Your task to perform on an android device: change notifications settings Image 0: 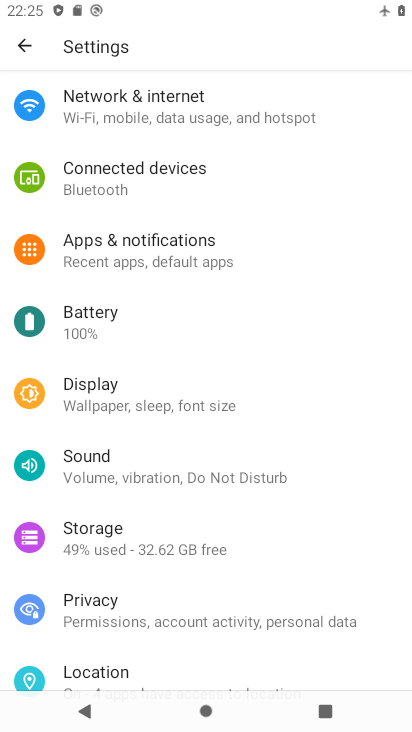
Step 0: click (200, 241)
Your task to perform on an android device: change notifications settings Image 1: 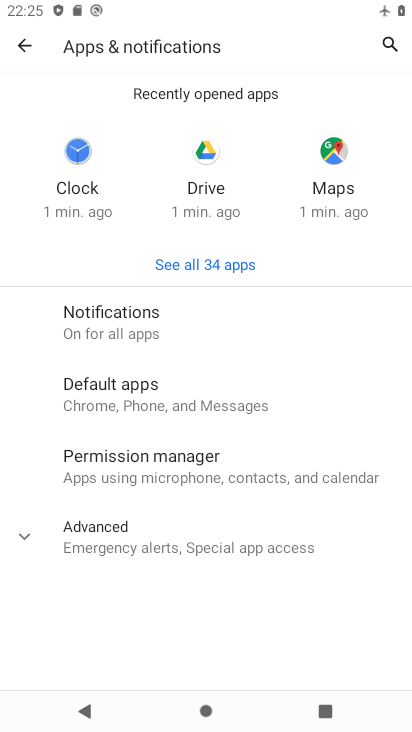
Step 1: click (228, 304)
Your task to perform on an android device: change notifications settings Image 2: 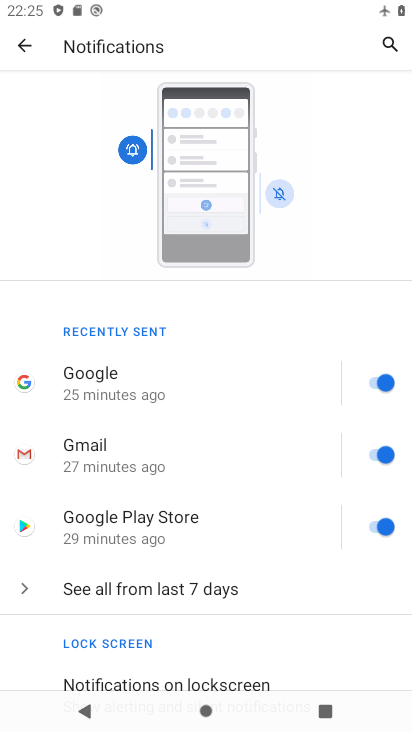
Step 2: click (215, 581)
Your task to perform on an android device: change notifications settings Image 3: 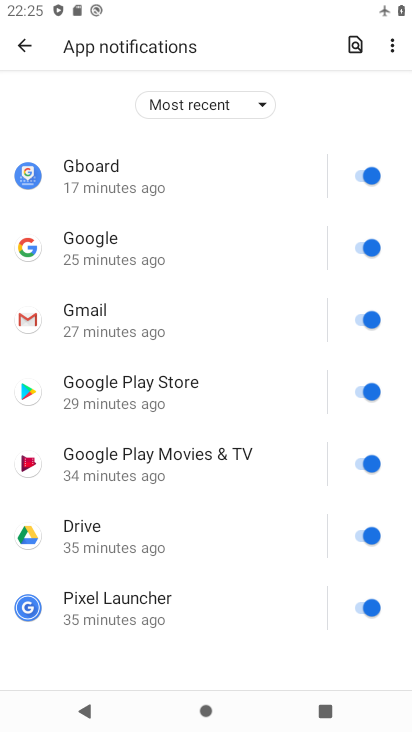
Step 3: click (345, 169)
Your task to perform on an android device: change notifications settings Image 4: 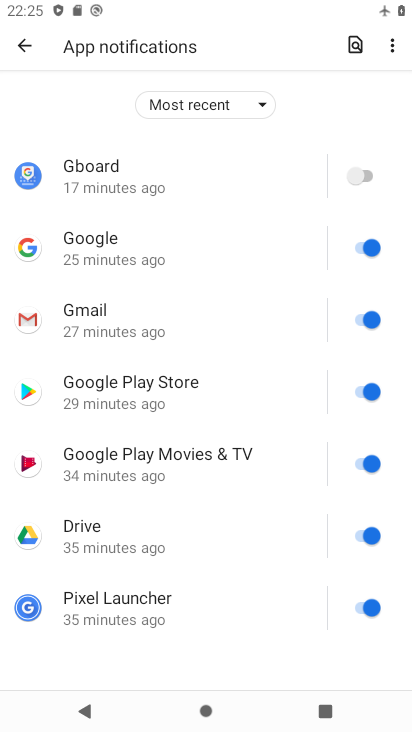
Step 4: click (357, 245)
Your task to perform on an android device: change notifications settings Image 5: 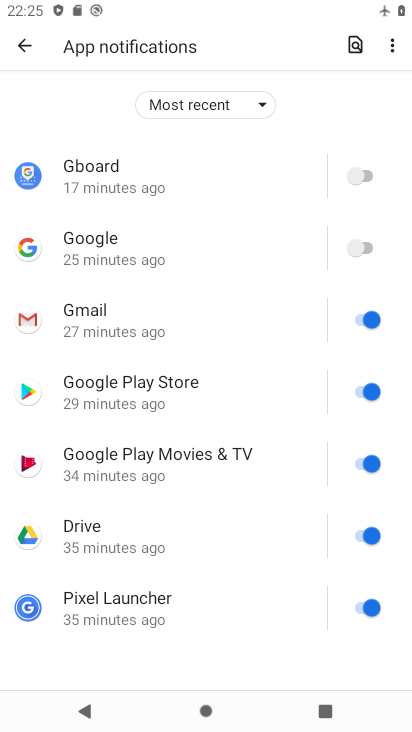
Step 5: click (355, 307)
Your task to perform on an android device: change notifications settings Image 6: 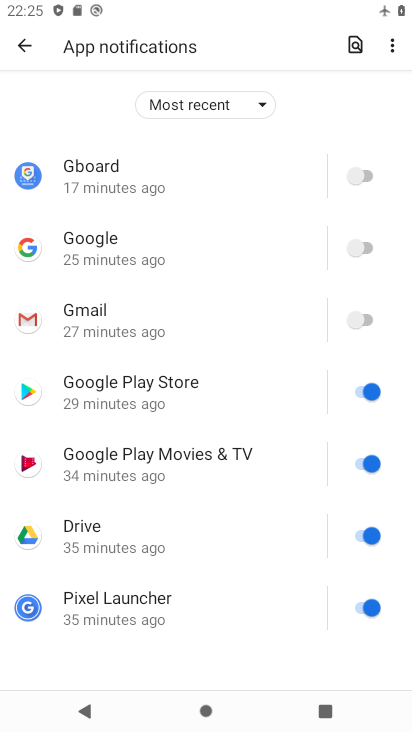
Step 6: click (363, 397)
Your task to perform on an android device: change notifications settings Image 7: 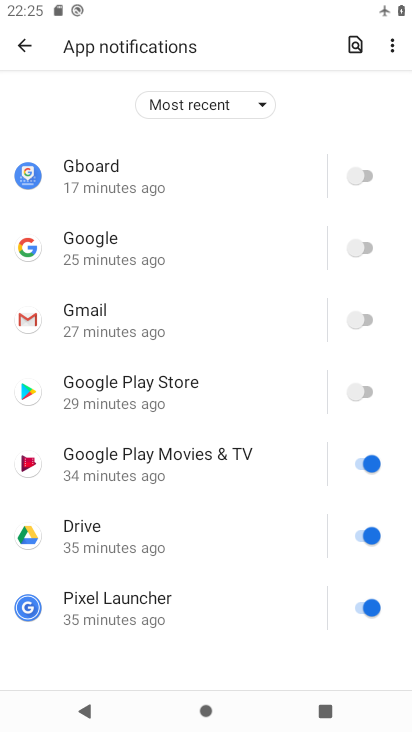
Step 7: click (359, 454)
Your task to perform on an android device: change notifications settings Image 8: 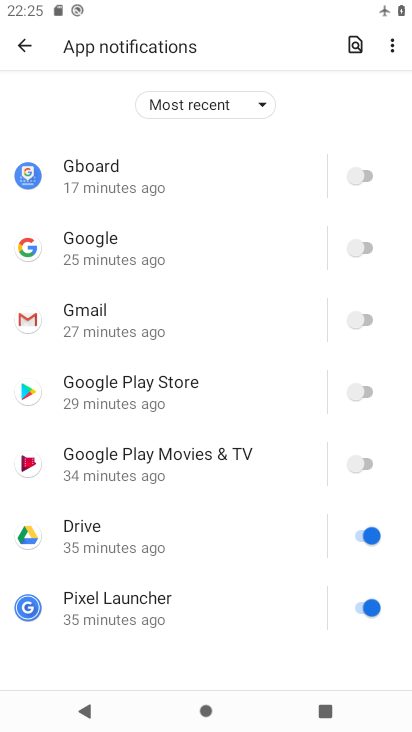
Step 8: click (361, 536)
Your task to perform on an android device: change notifications settings Image 9: 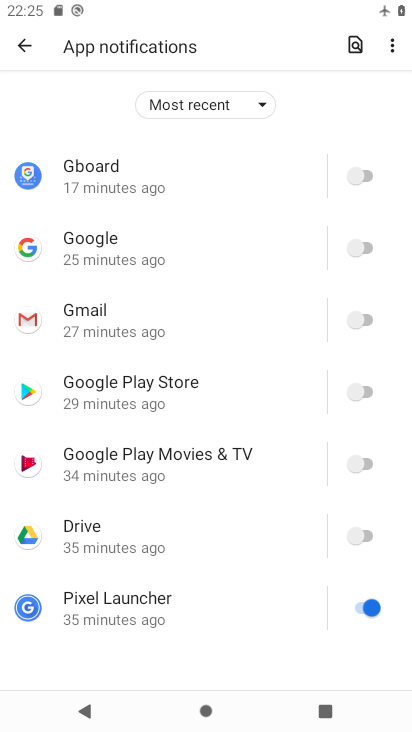
Step 9: click (355, 598)
Your task to perform on an android device: change notifications settings Image 10: 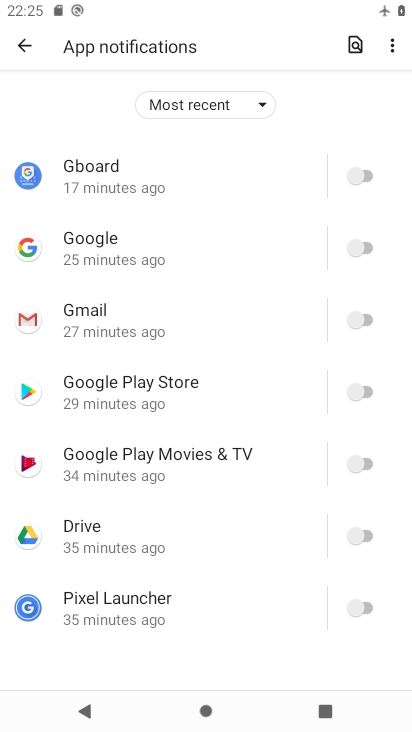
Step 10: drag from (234, 652) to (268, 381)
Your task to perform on an android device: change notifications settings Image 11: 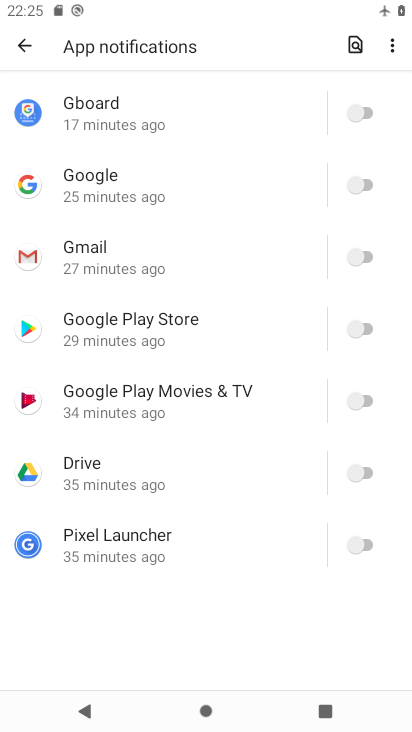
Step 11: click (12, 43)
Your task to perform on an android device: change notifications settings Image 12: 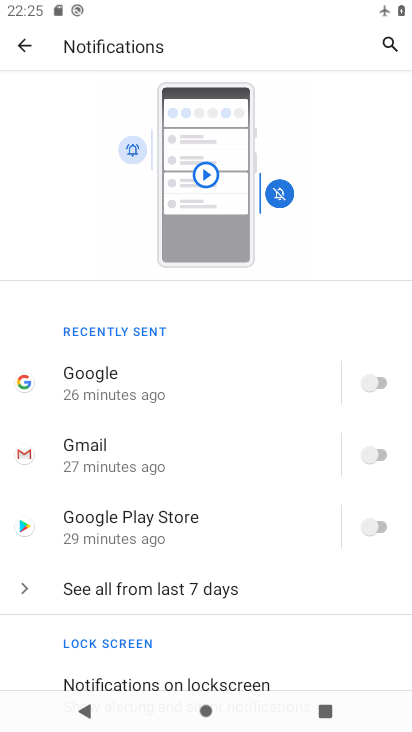
Step 12: drag from (142, 611) to (214, 158)
Your task to perform on an android device: change notifications settings Image 13: 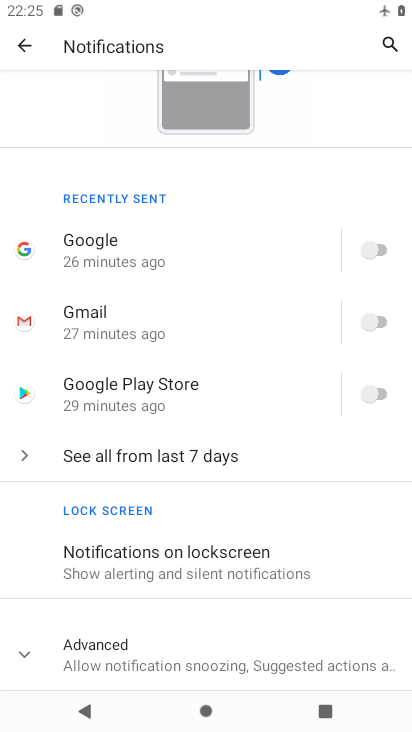
Step 13: click (168, 562)
Your task to perform on an android device: change notifications settings Image 14: 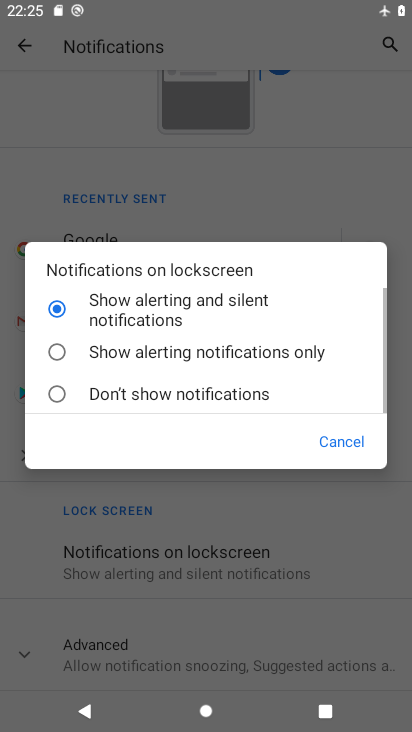
Step 14: click (151, 346)
Your task to perform on an android device: change notifications settings Image 15: 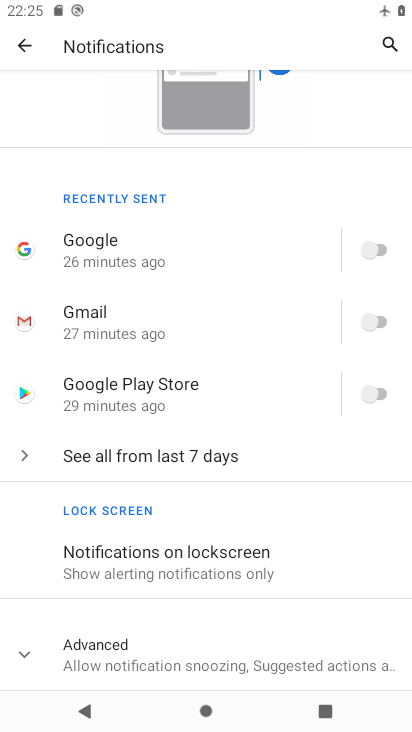
Step 15: click (225, 638)
Your task to perform on an android device: change notifications settings Image 16: 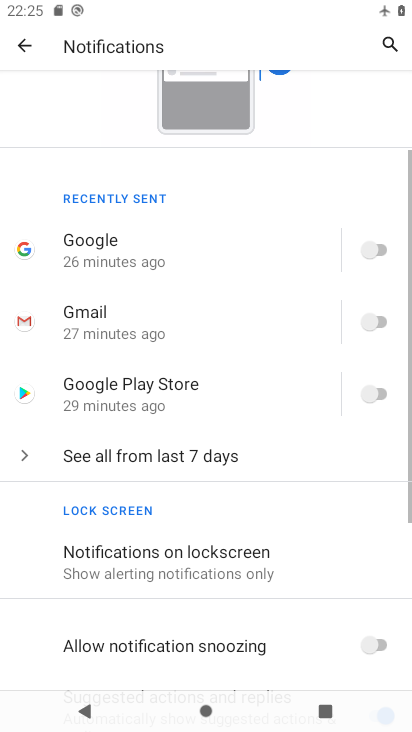
Step 16: drag from (222, 646) to (263, 205)
Your task to perform on an android device: change notifications settings Image 17: 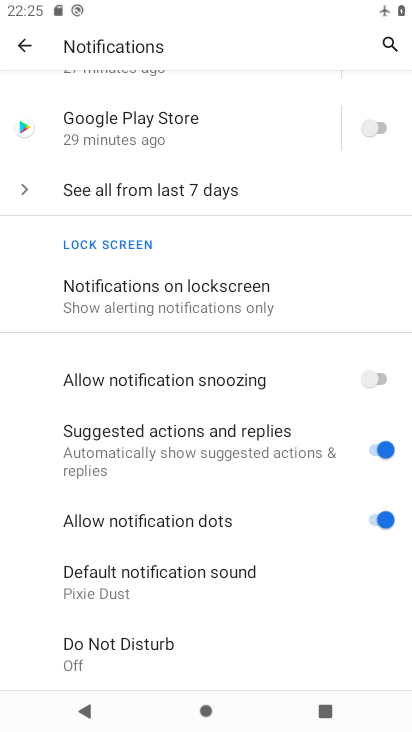
Step 17: click (316, 387)
Your task to perform on an android device: change notifications settings Image 18: 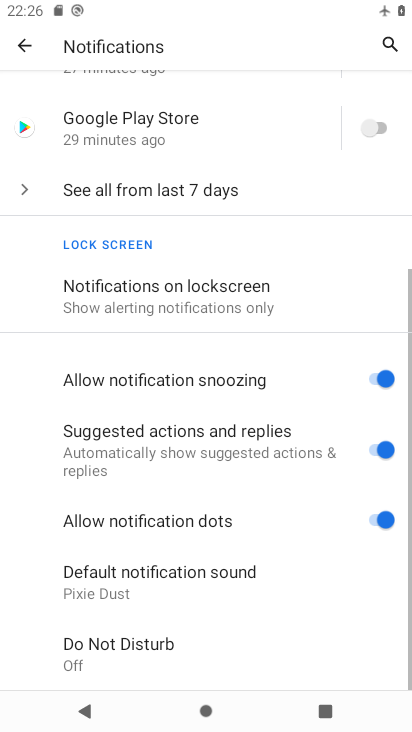
Step 18: click (369, 454)
Your task to perform on an android device: change notifications settings Image 19: 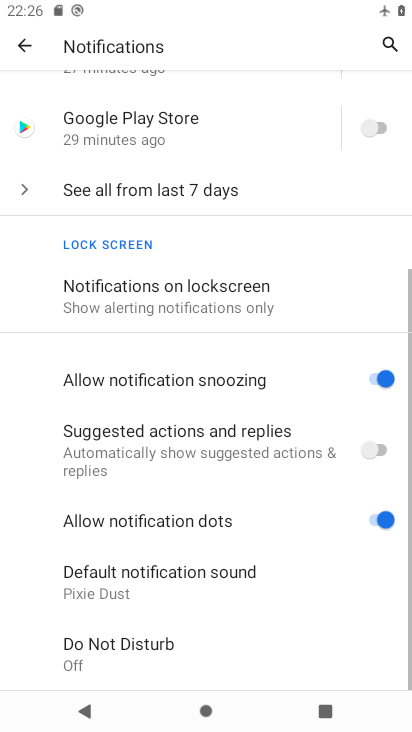
Step 19: click (377, 515)
Your task to perform on an android device: change notifications settings Image 20: 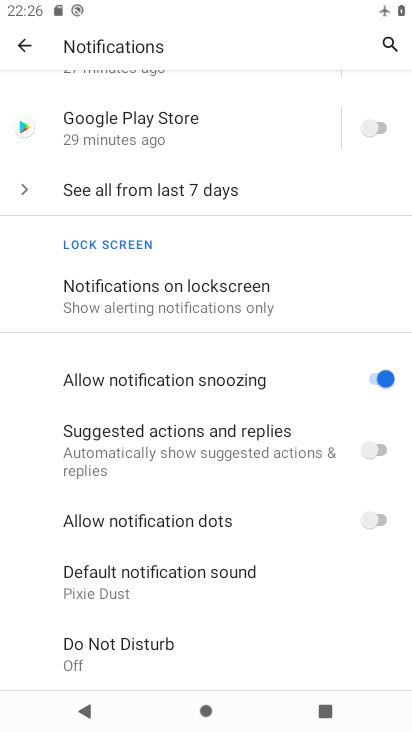
Step 20: task complete